Your task to perform on an android device: Open settings on Google Maps Image 0: 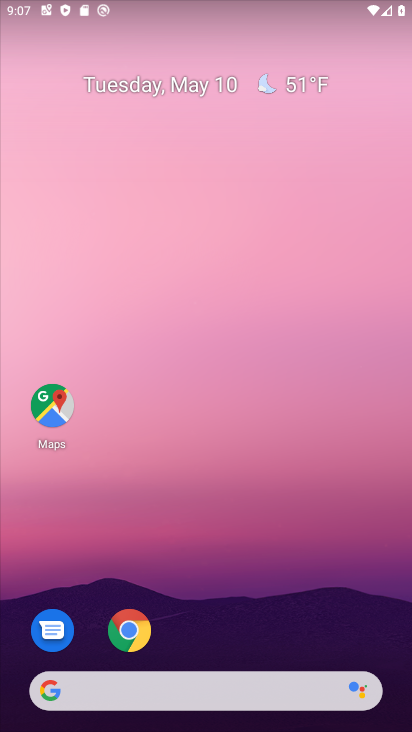
Step 0: click (304, 370)
Your task to perform on an android device: Open settings on Google Maps Image 1: 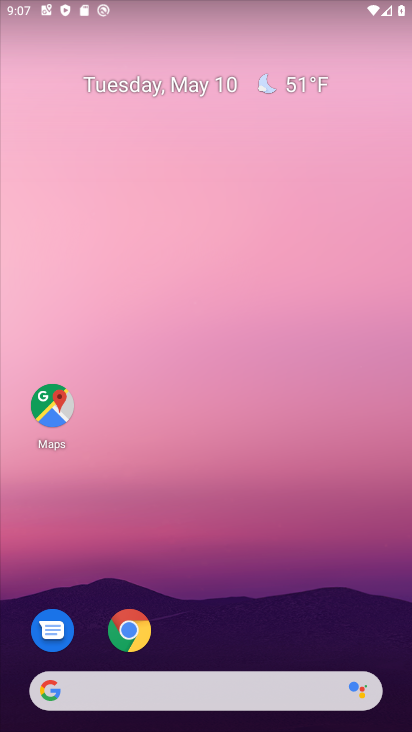
Step 1: drag from (260, 601) to (316, 106)
Your task to perform on an android device: Open settings on Google Maps Image 2: 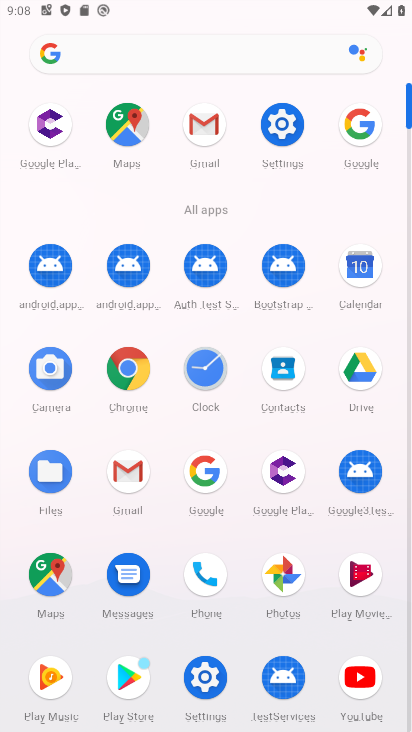
Step 2: click (202, 677)
Your task to perform on an android device: Open settings on Google Maps Image 3: 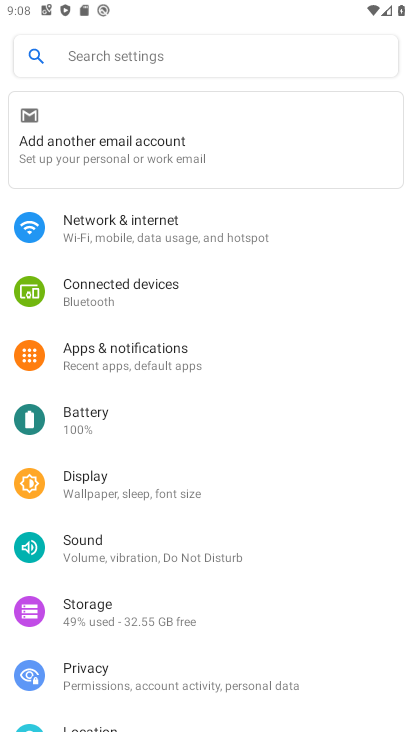
Step 3: press home button
Your task to perform on an android device: Open settings on Google Maps Image 4: 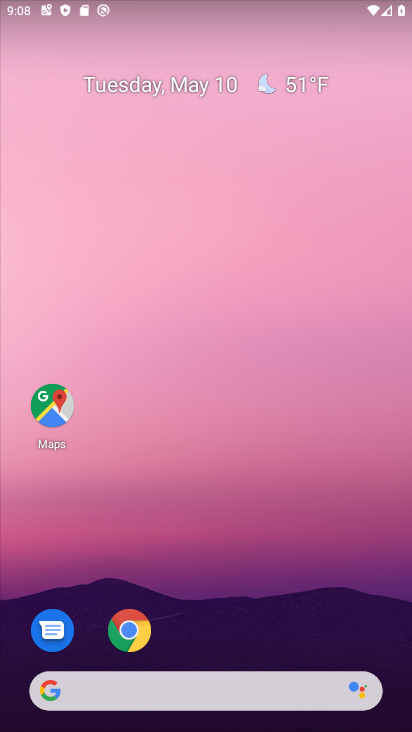
Step 4: drag from (256, 539) to (234, 158)
Your task to perform on an android device: Open settings on Google Maps Image 5: 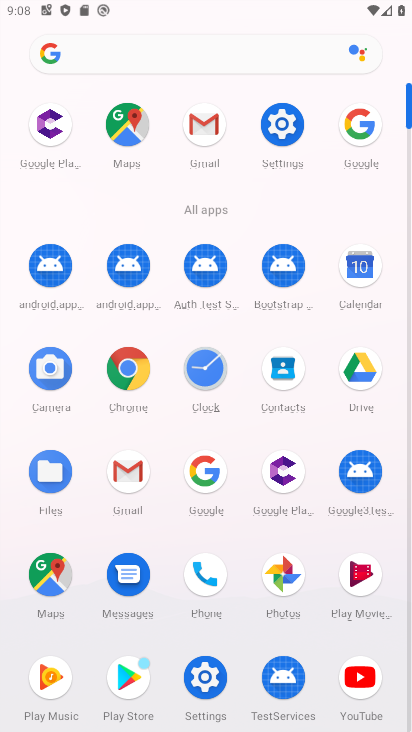
Step 5: drag from (237, 560) to (198, 106)
Your task to perform on an android device: Open settings on Google Maps Image 6: 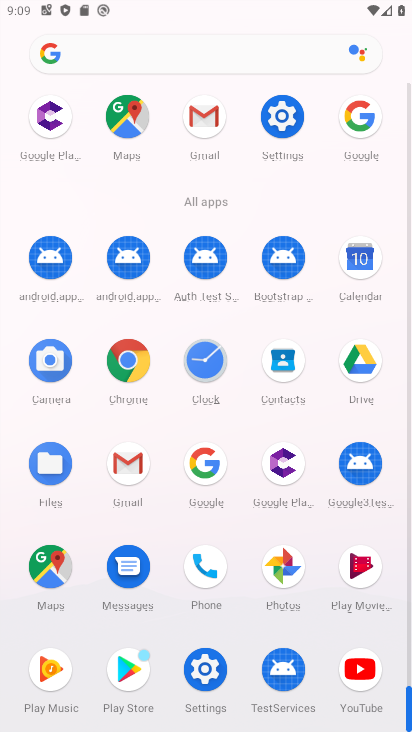
Step 6: click (57, 561)
Your task to perform on an android device: Open settings on Google Maps Image 7: 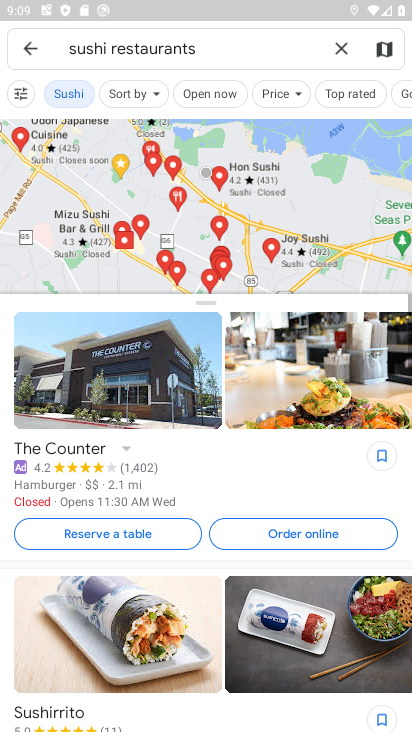
Step 7: click (28, 60)
Your task to perform on an android device: Open settings on Google Maps Image 8: 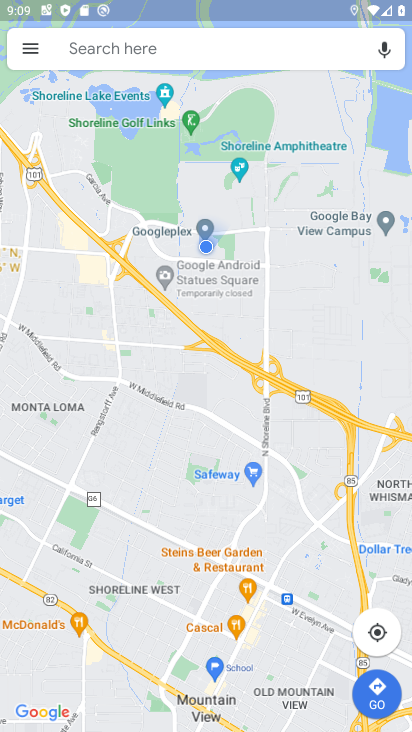
Step 8: click (44, 46)
Your task to perform on an android device: Open settings on Google Maps Image 9: 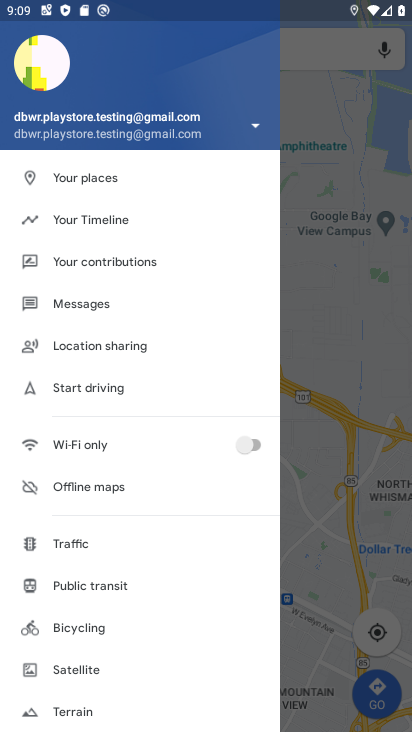
Step 9: click (100, 219)
Your task to perform on an android device: Open settings on Google Maps Image 10: 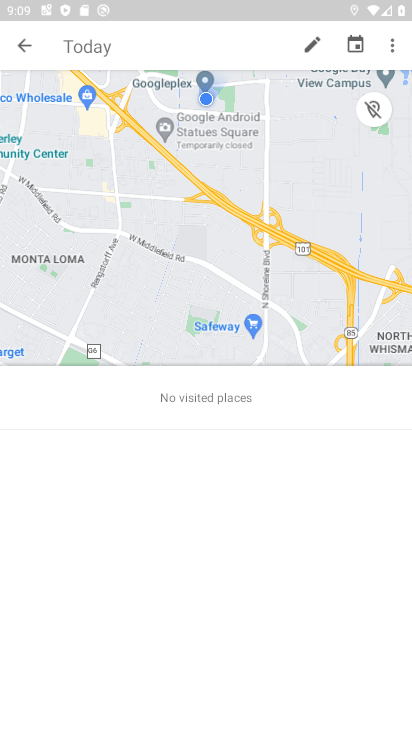
Step 10: click (395, 49)
Your task to perform on an android device: Open settings on Google Maps Image 11: 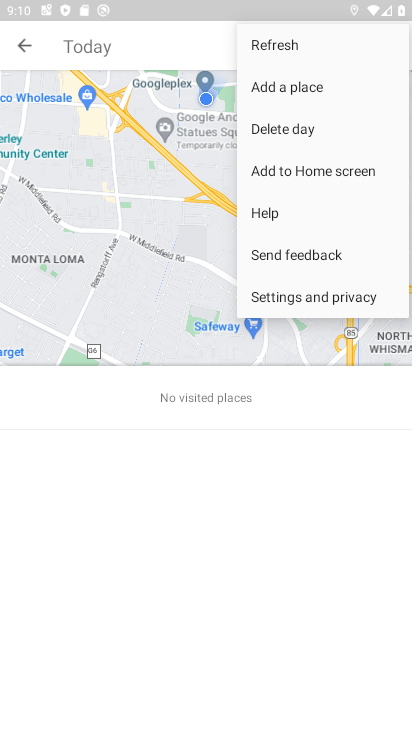
Step 11: click (296, 284)
Your task to perform on an android device: Open settings on Google Maps Image 12: 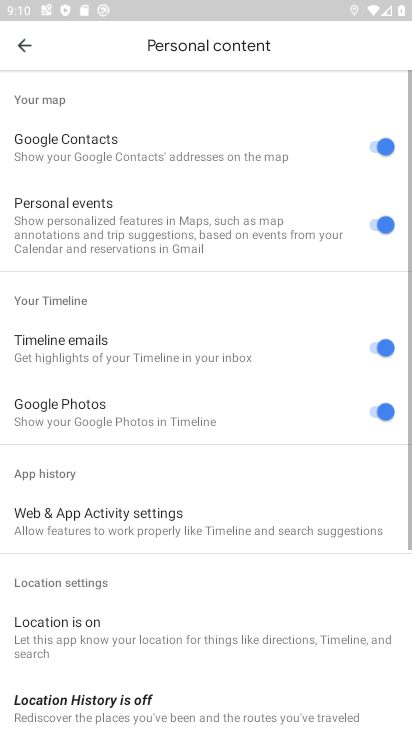
Step 12: drag from (116, 642) to (104, 343)
Your task to perform on an android device: Open settings on Google Maps Image 13: 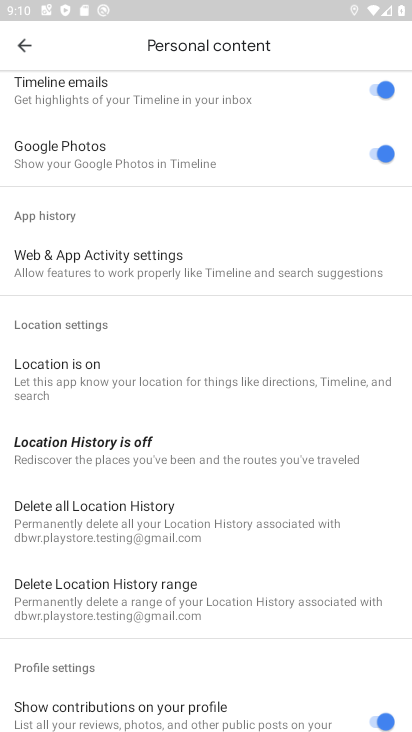
Step 13: click (161, 531)
Your task to perform on an android device: Open settings on Google Maps Image 14: 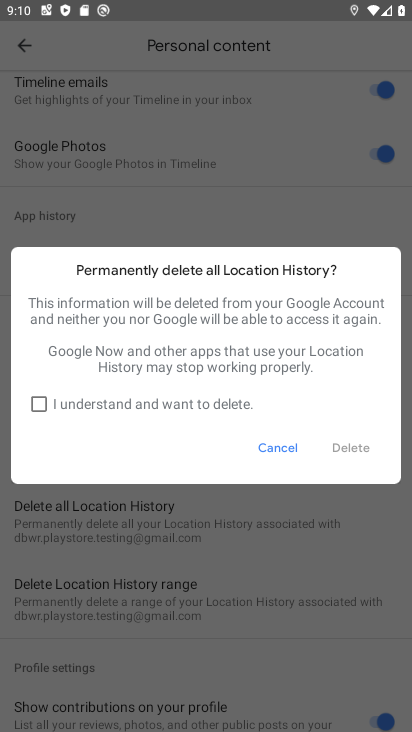
Step 14: click (285, 435)
Your task to perform on an android device: Open settings on Google Maps Image 15: 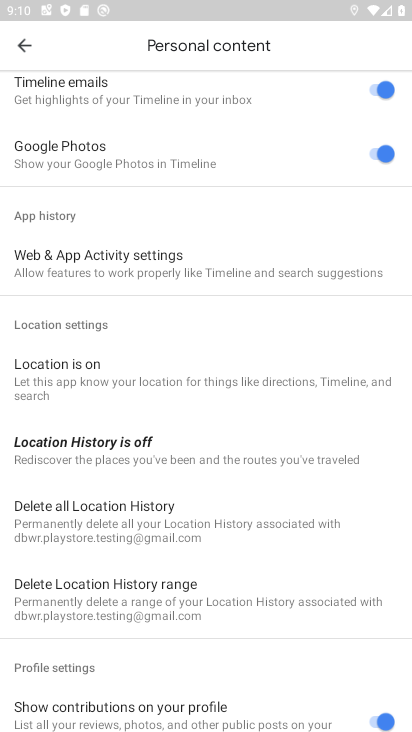
Step 15: task complete